Your task to perform on an android device: View the shopping cart on bestbuy.com. Image 0: 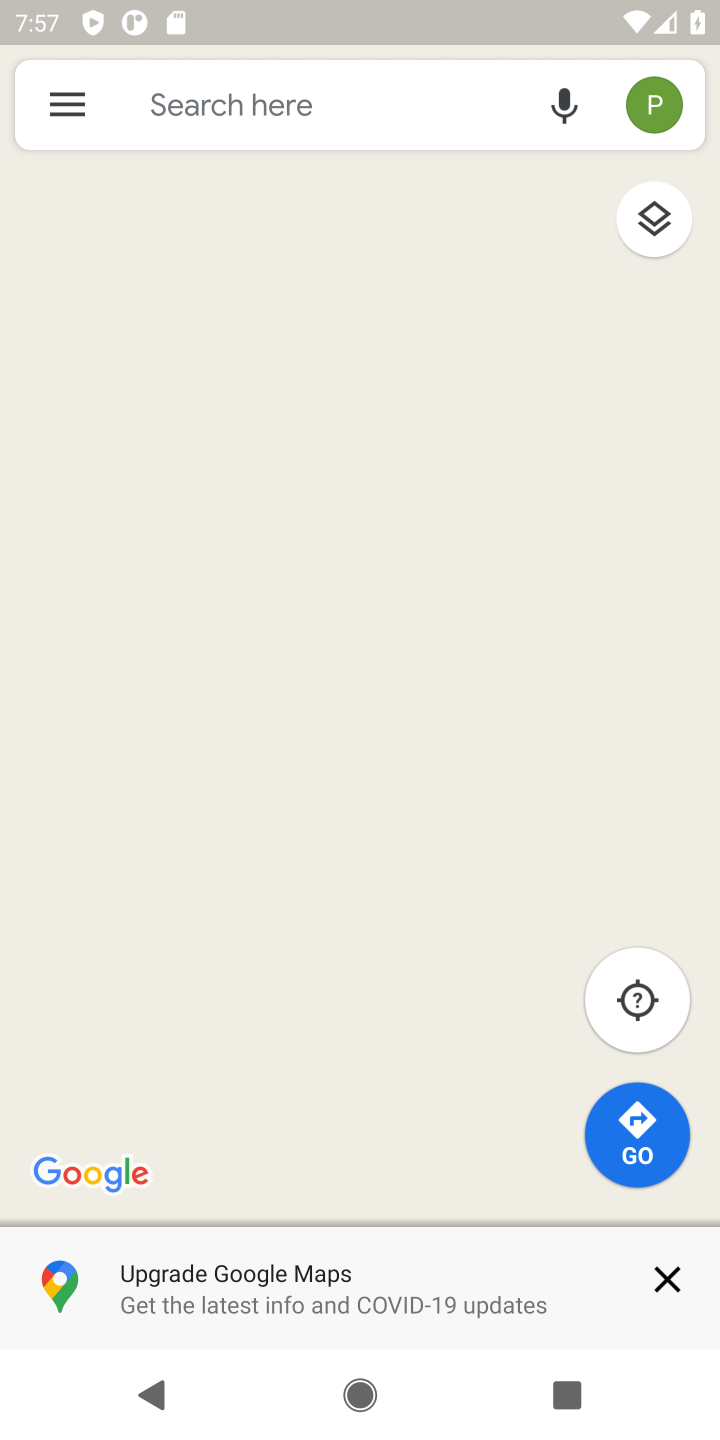
Step 0: press home button
Your task to perform on an android device: View the shopping cart on bestbuy.com. Image 1: 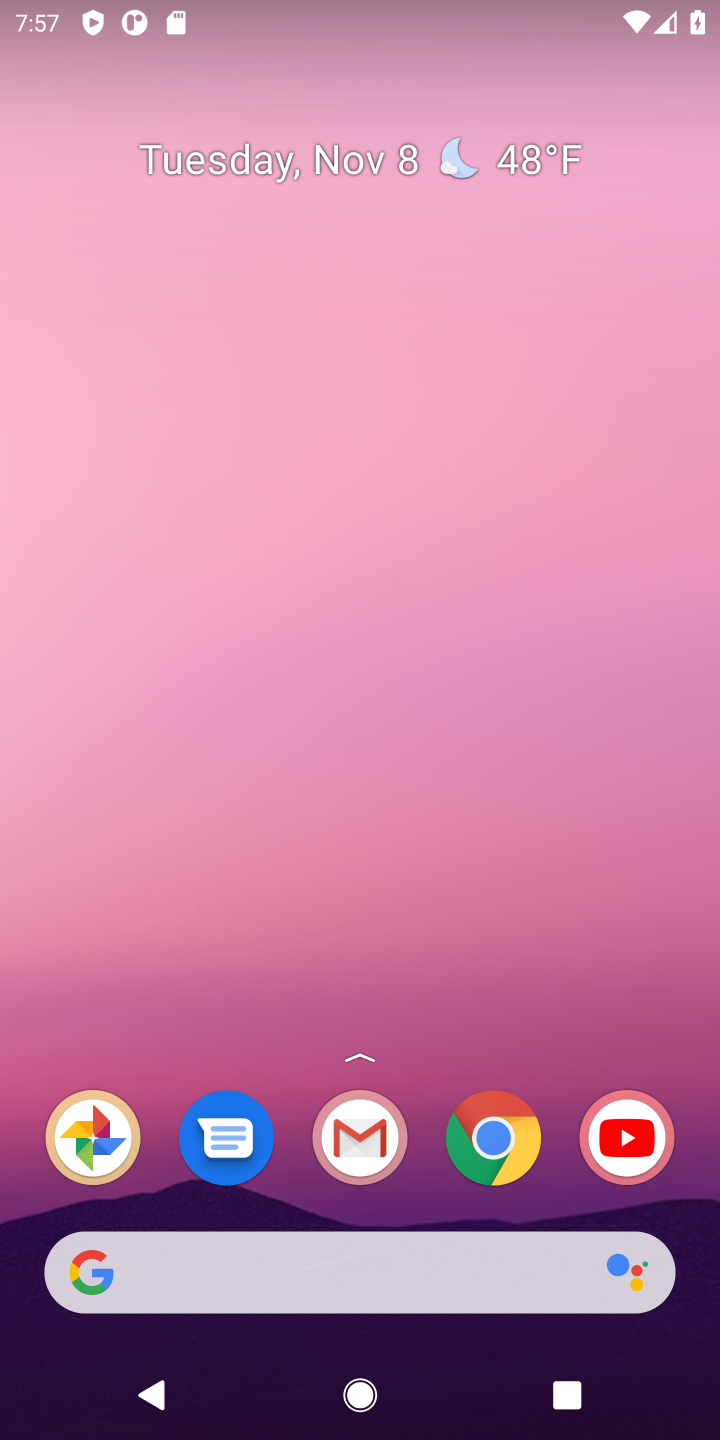
Step 1: click (495, 1132)
Your task to perform on an android device: View the shopping cart on bestbuy.com. Image 2: 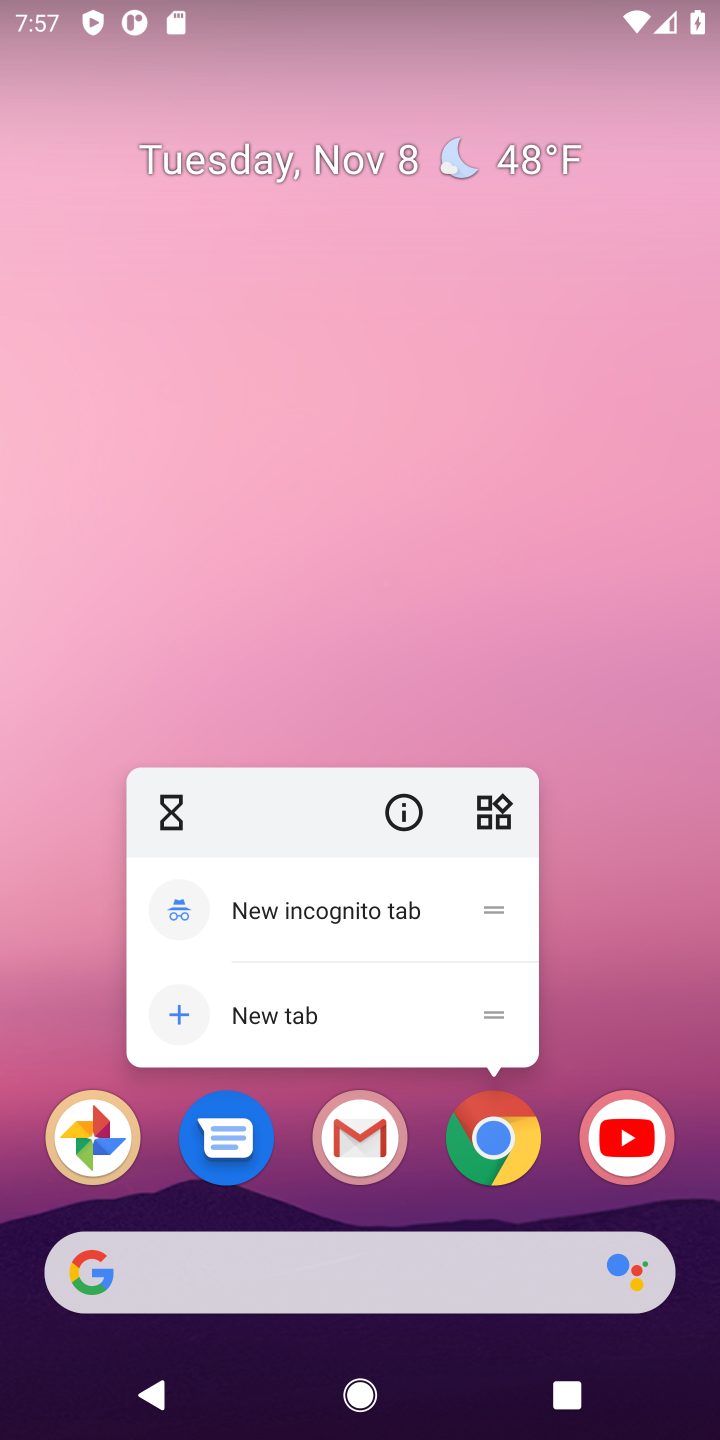
Step 2: click (496, 1138)
Your task to perform on an android device: View the shopping cart on bestbuy.com. Image 3: 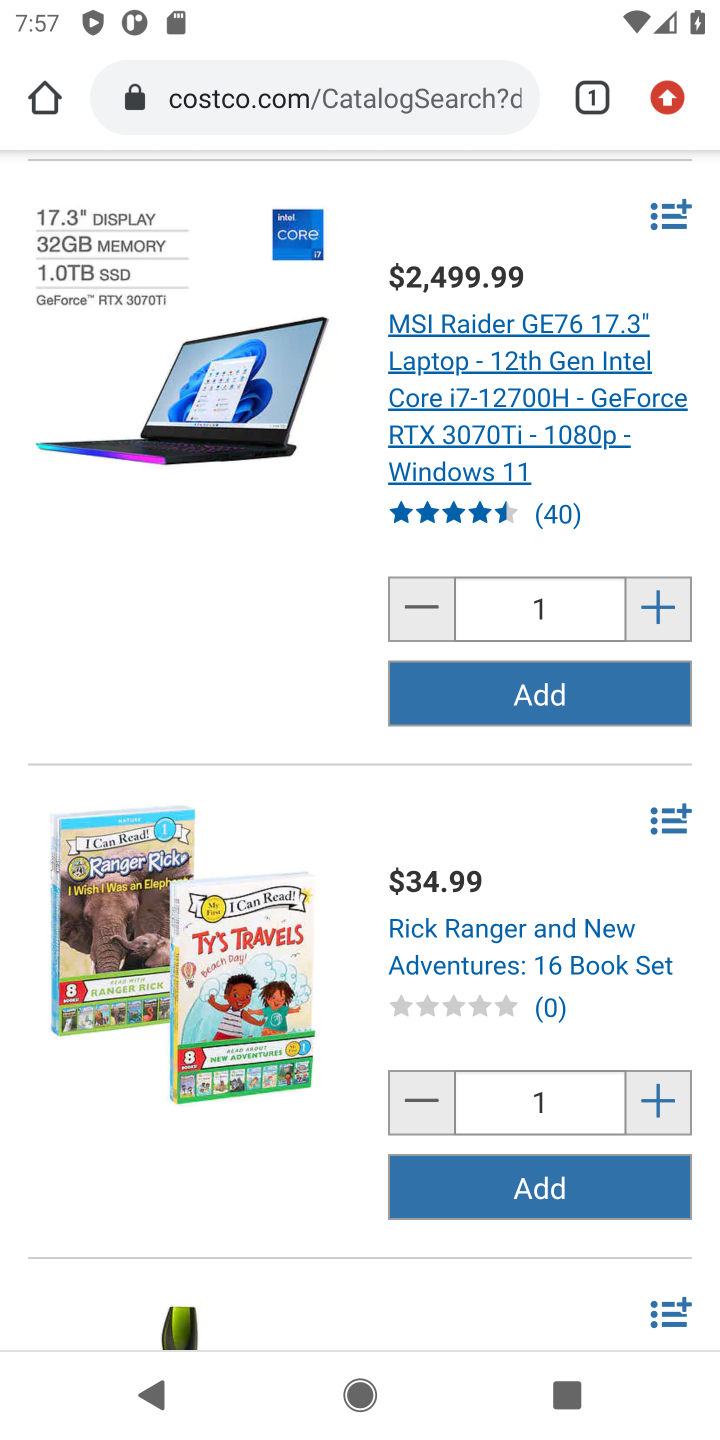
Step 3: click (386, 99)
Your task to perform on an android device: View the shopping cart on bestbuy.com. Image 4: 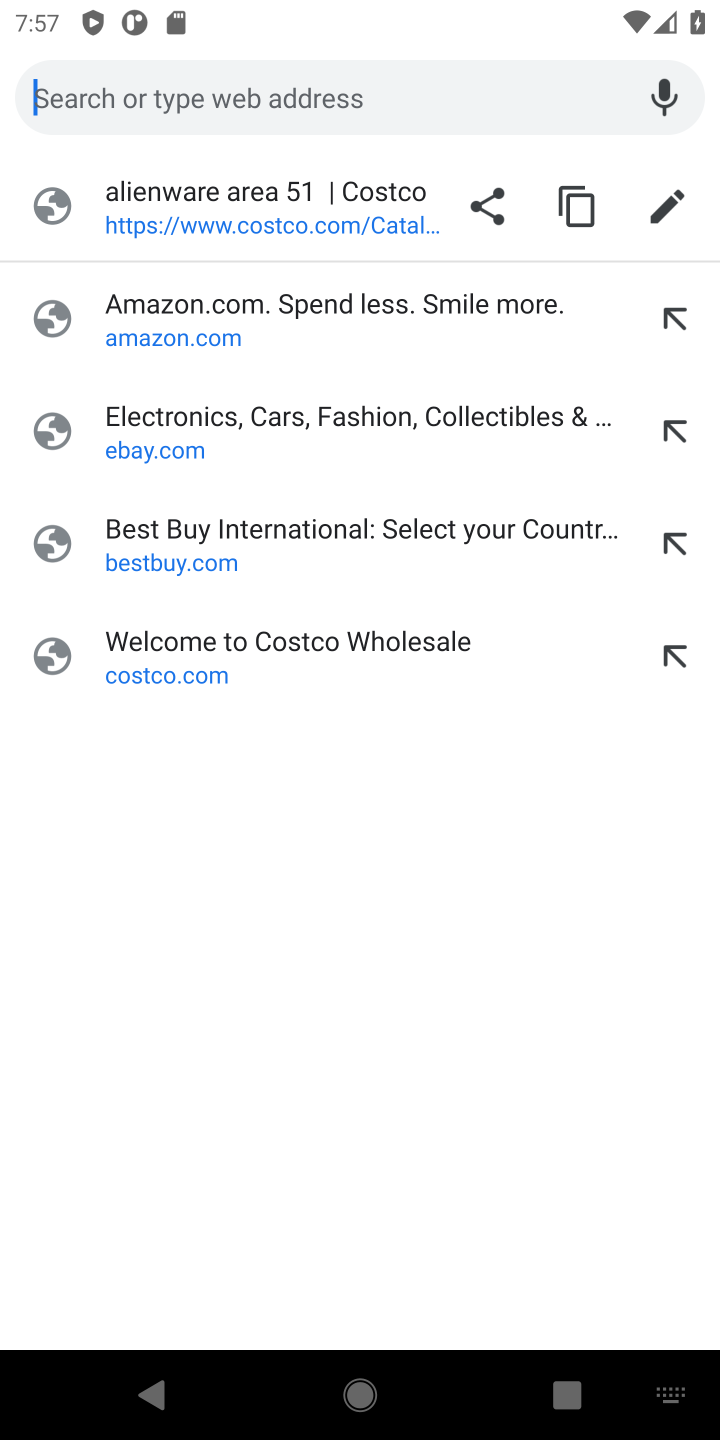
Step 4: click (149, 555)
Your task to perform on an android device: View the shopping cart on bestbuy.com. Image 5: 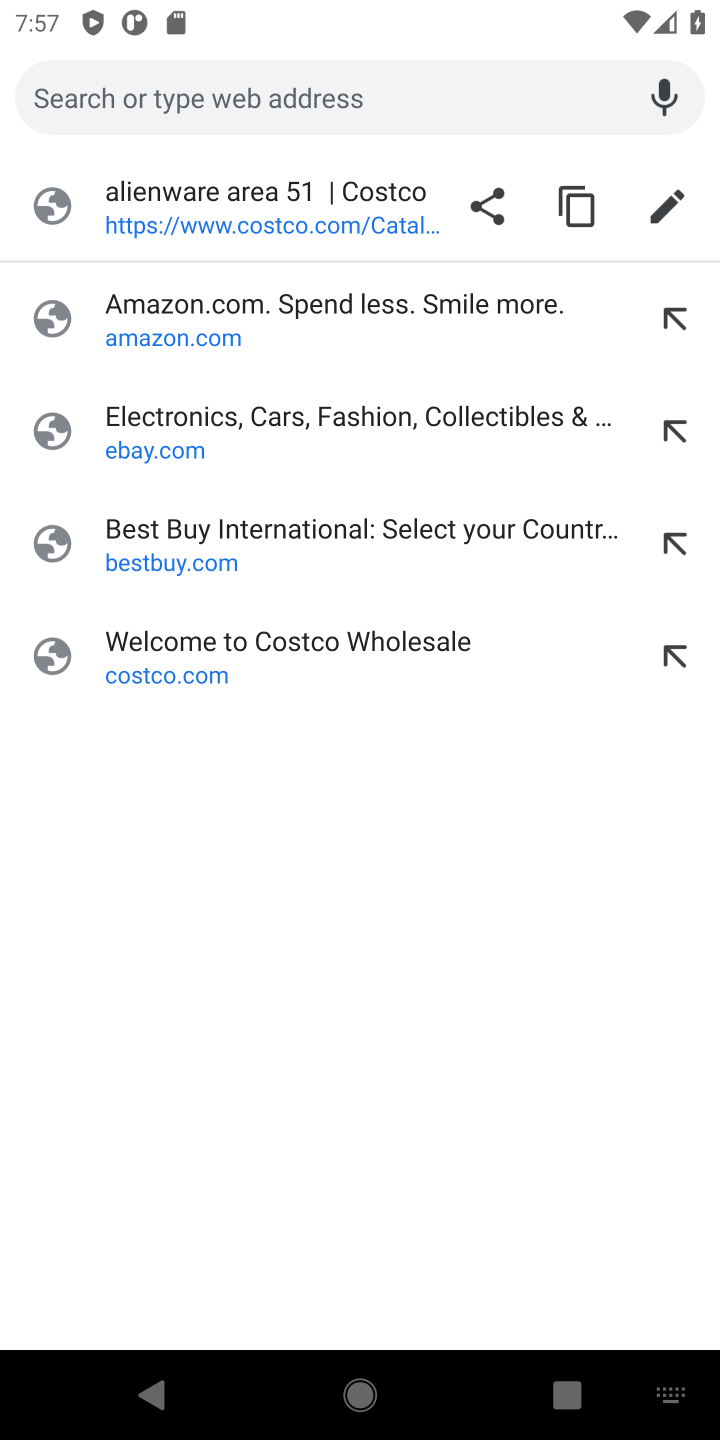
Step 5: click (166, 554)
Your task to perform on an android device: View the shopping cart on bestbuy.com. Image 6: 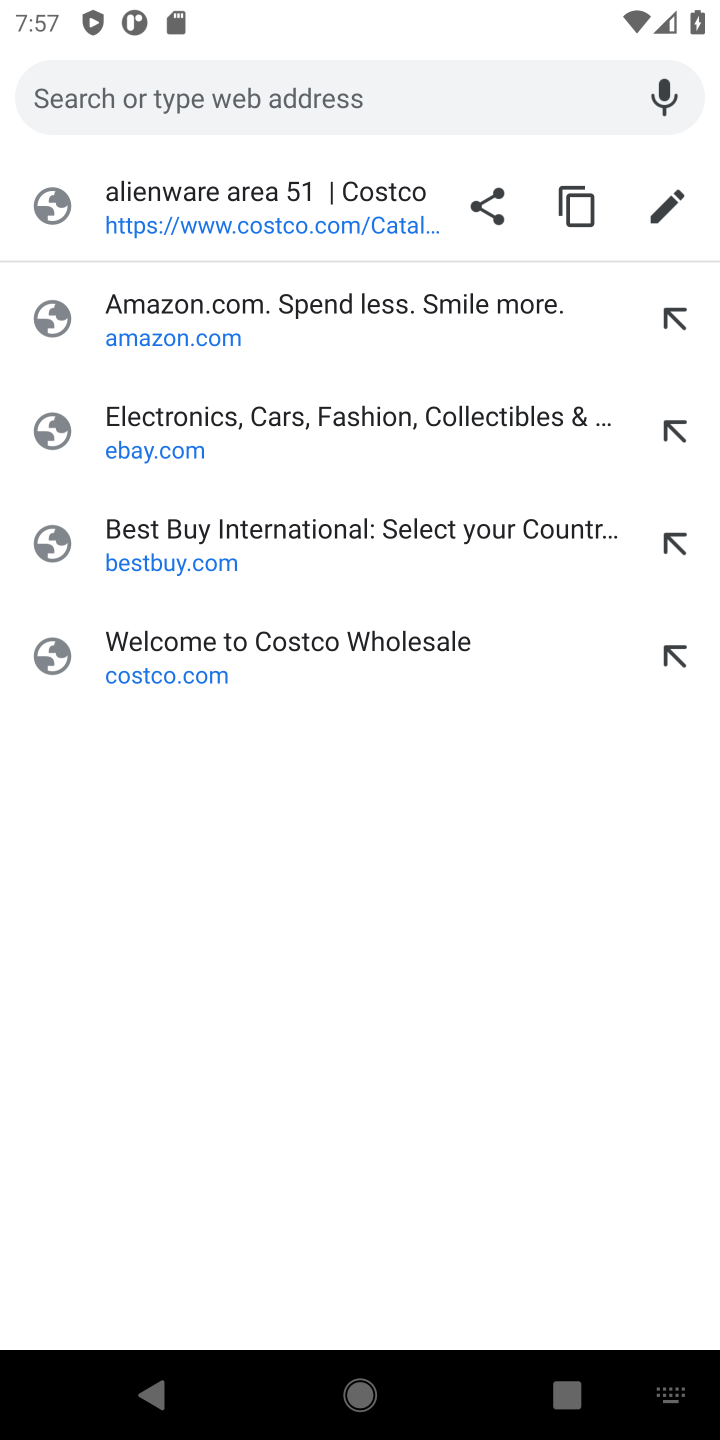
Step 6: click (175, 553)
Your task to perform on an android device: View the shopping cart on bestbuy.com. Image 7: 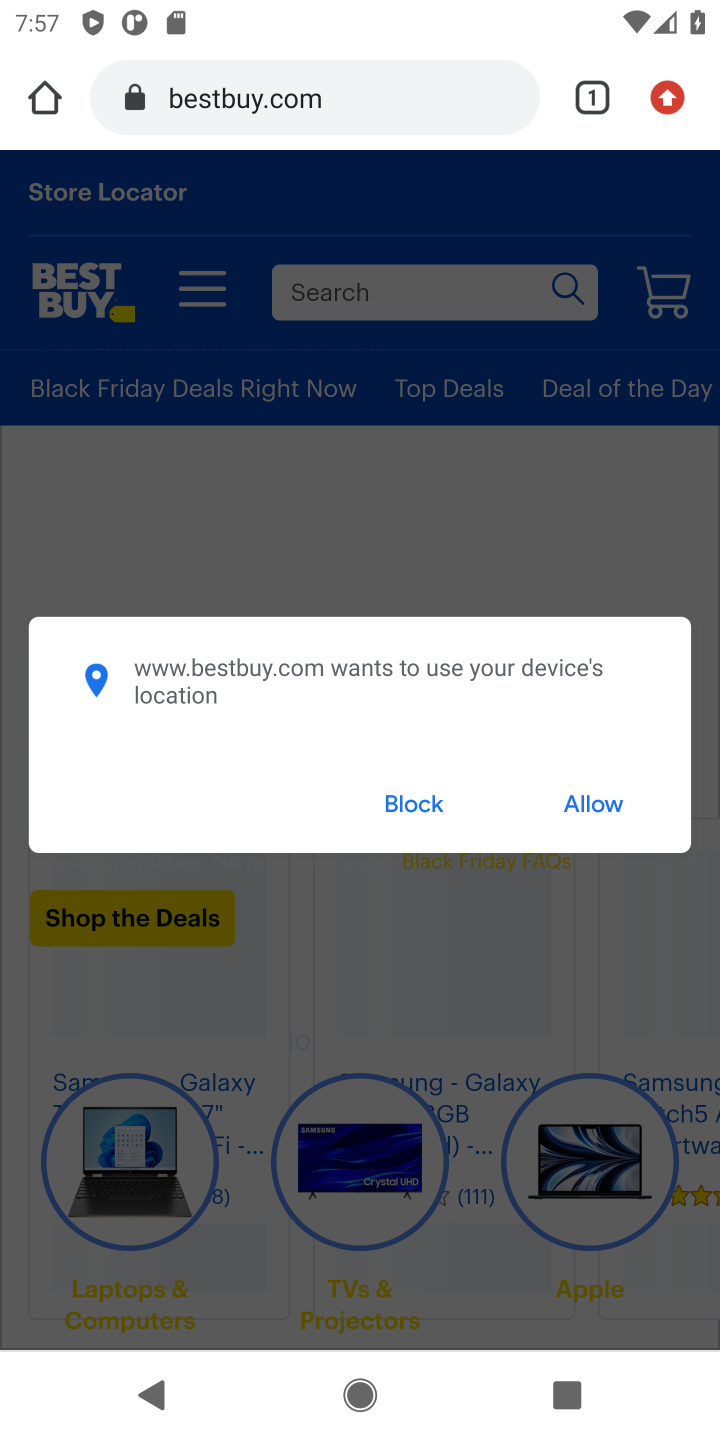
Step 7: click (609, 793)
Your task to perform on an android device: View the shopping cart on bestbuy.com. Image 8: 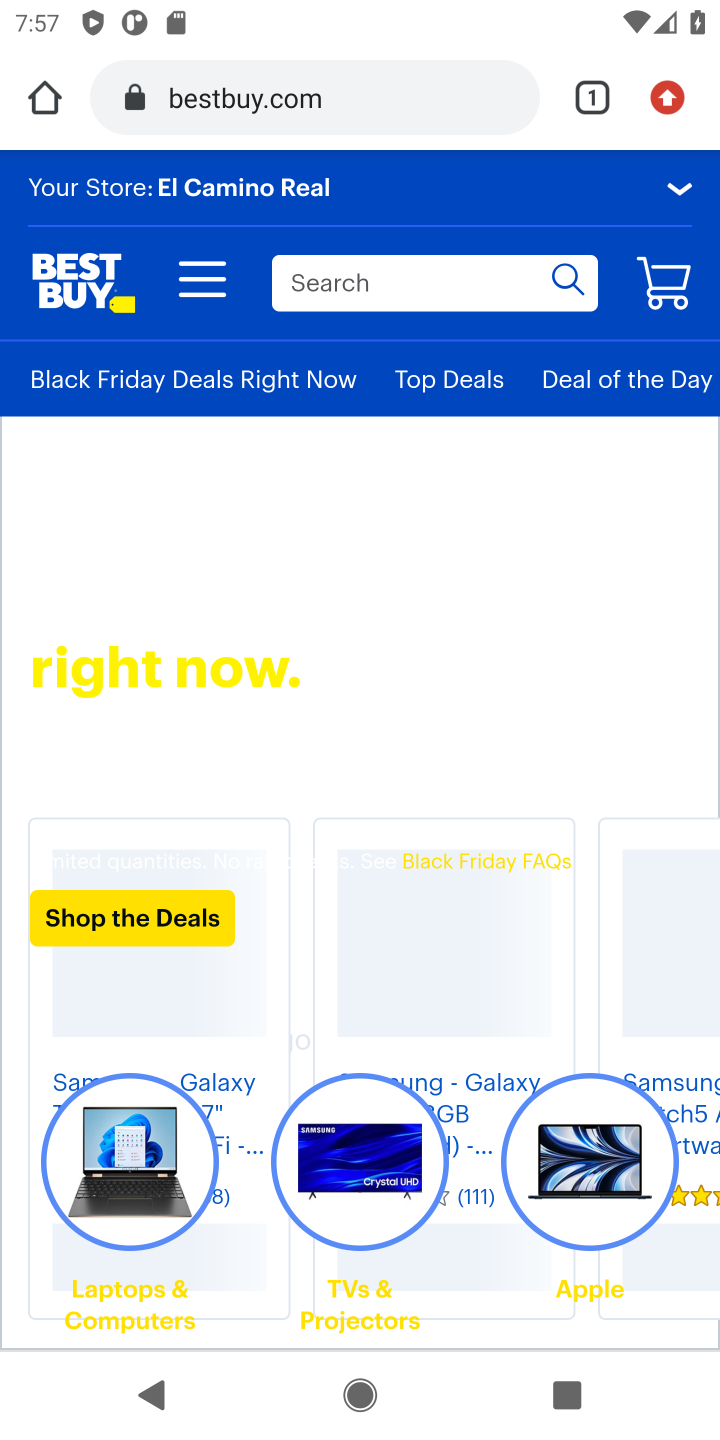
Step 8: click (661, 275)
Your task to perform on an android device: View the shopping cart on bestbuy.com. Image 9: 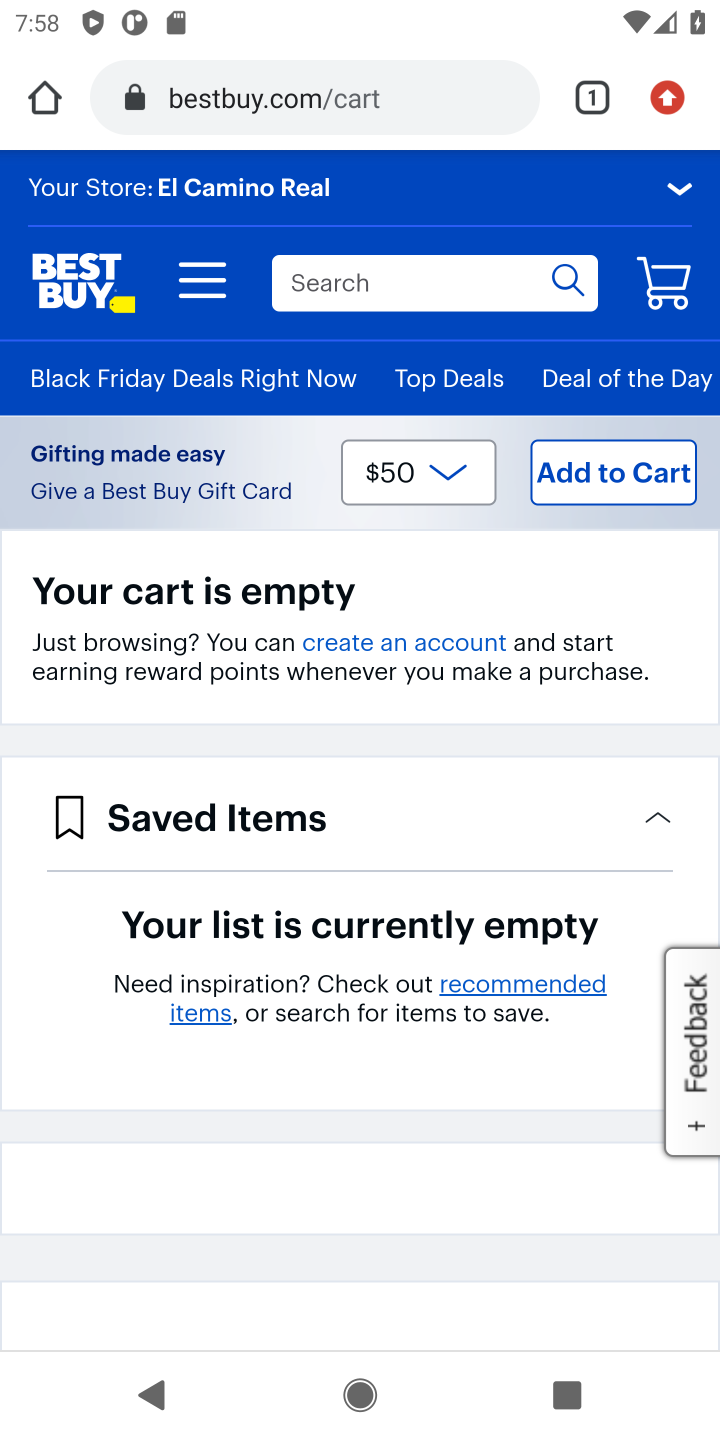
Step 9: task complete